Your task to perform on an android device: Open Youtube and go to "Your channel" Image 0: 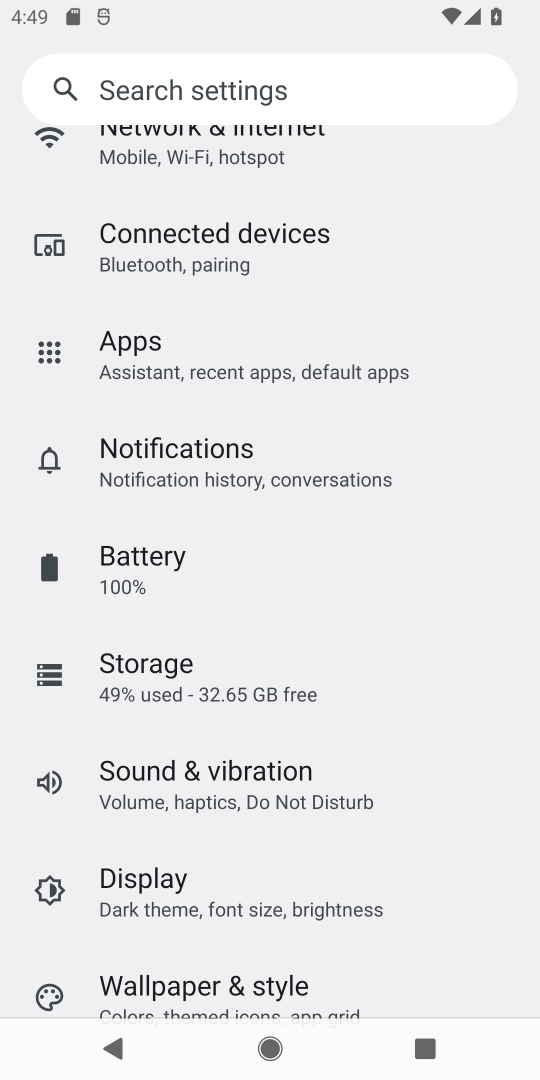
Step 0: press home button
Your task to perform on an android device: Open Youtube and go to "Your channel" Image 1: 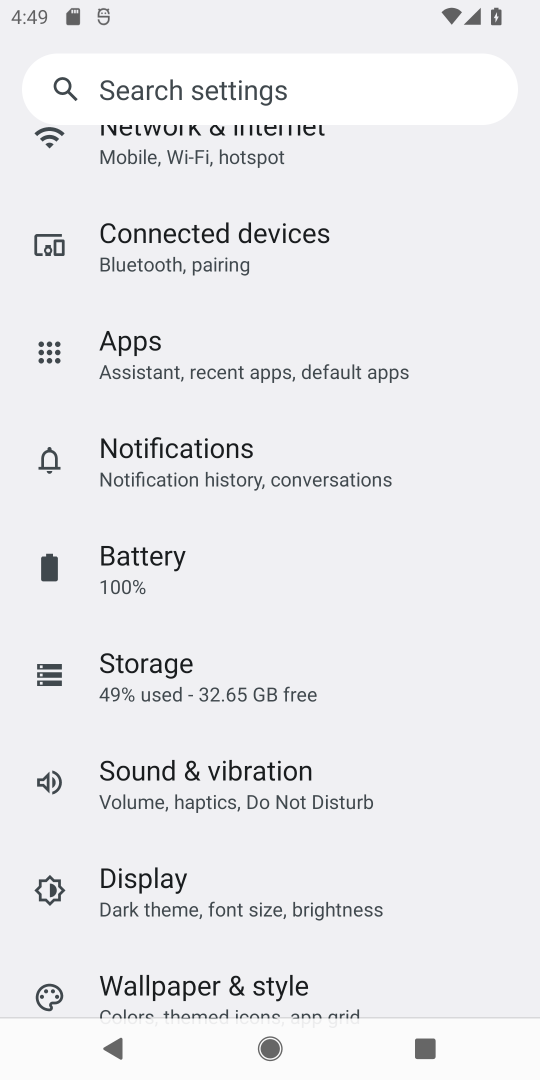
Step 1: press home button
Your task to perform on an android device: Open Youtube and go to "Your channel" Image 2: 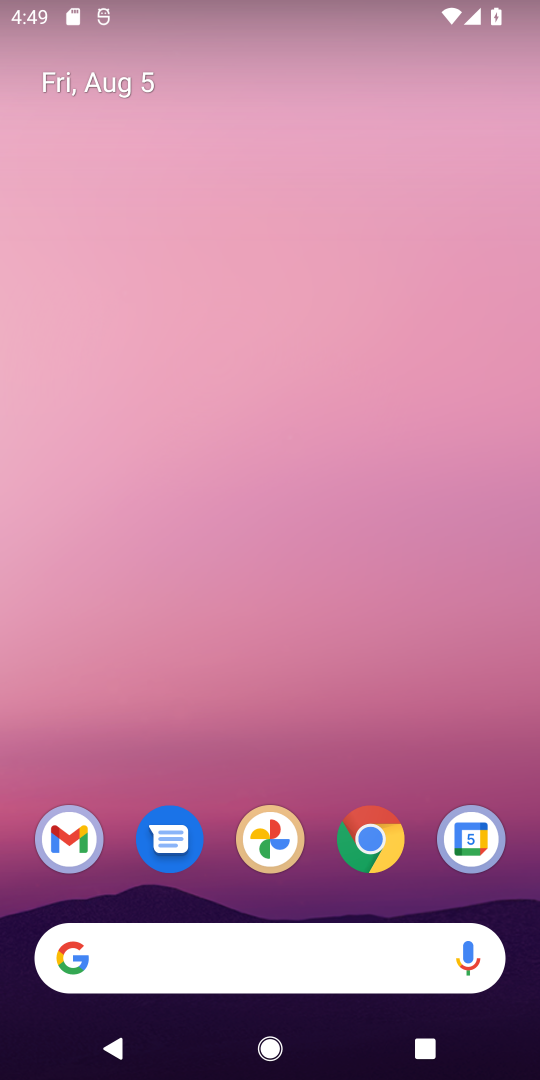
Step 2: drag from (267, 778) to (233, 175)
Your task to perform on an android device: Open Youtube and go to "Your channel" Image 3: 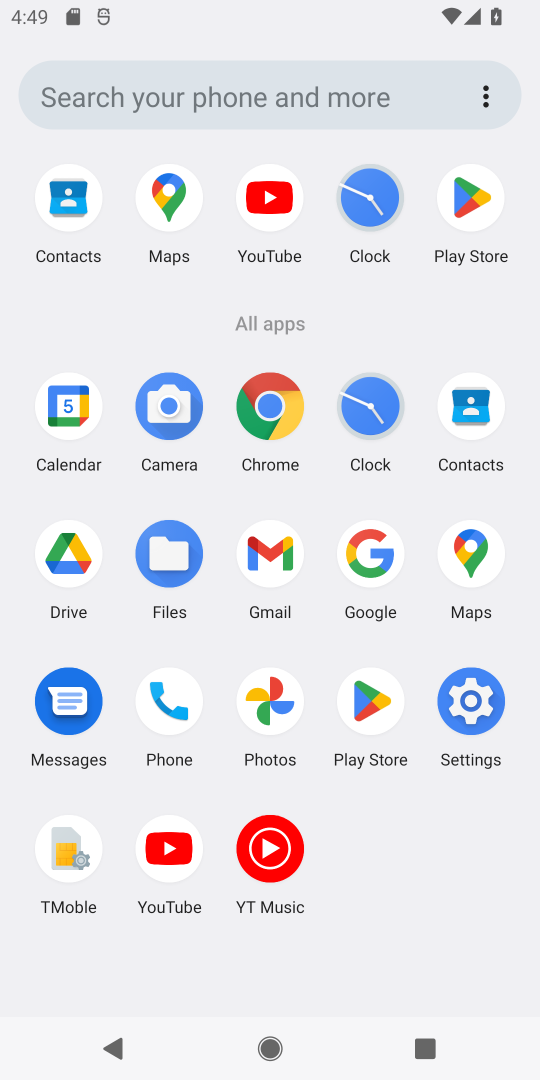
Step 3: click (272, 207)
Your task to perform on an android device: Open Youtube and go to "Your channel" Image 4: 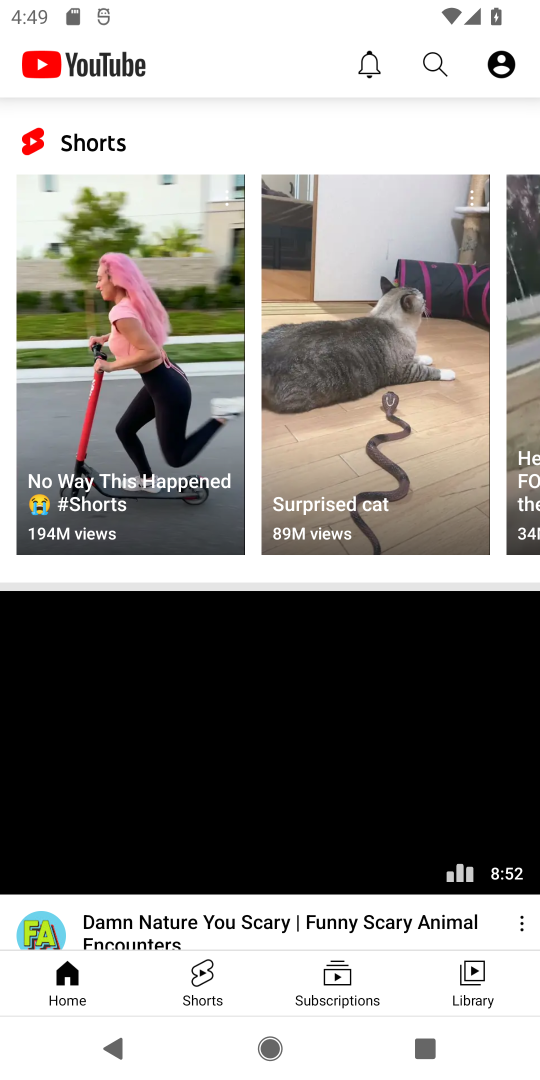
Step 4: click (513, 76)
Your task to perform on an android device: Open Youtube and go to "Your channel" Image 5: 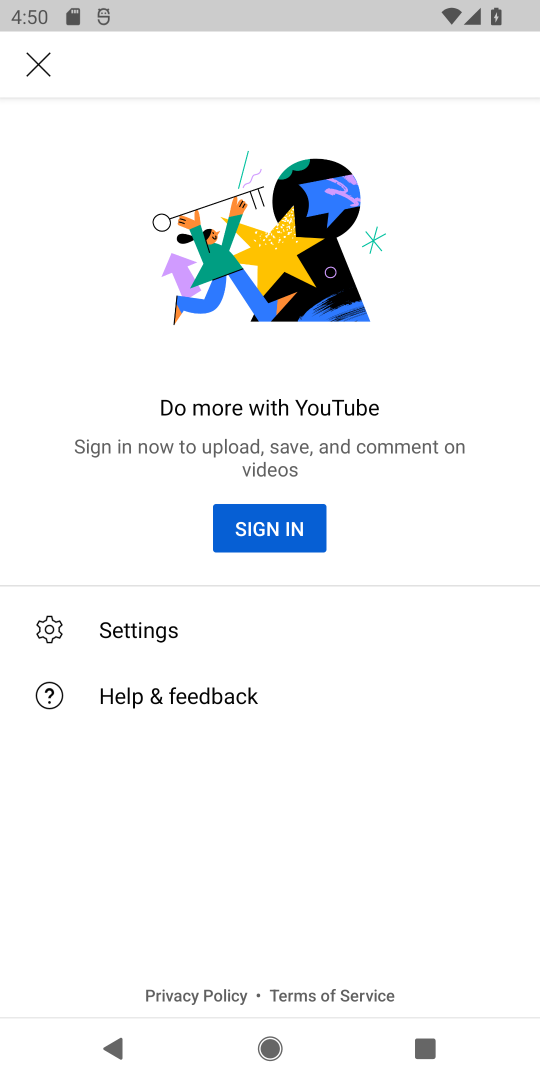
Step 5: task complete